Your task to perform on an android device: toggle notification dots Image 0: 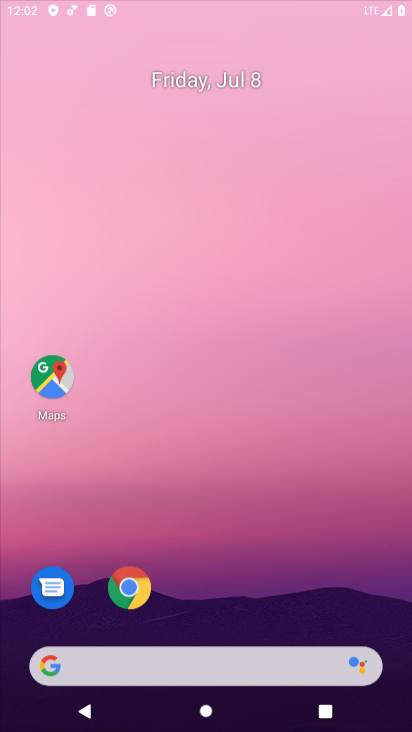
Step 0: press home button
Your task to perform on an android device: toggle notification dots Image 1: 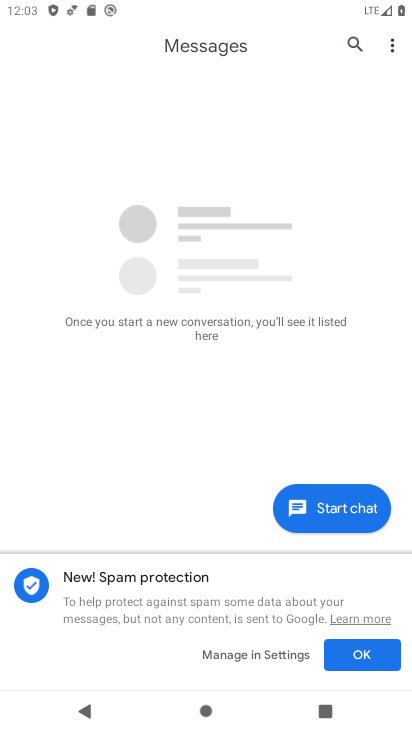
Step 1: drag from (228, 325) to (228, 65)
Your task to perform on an android device: toggle notification dots Image 2: 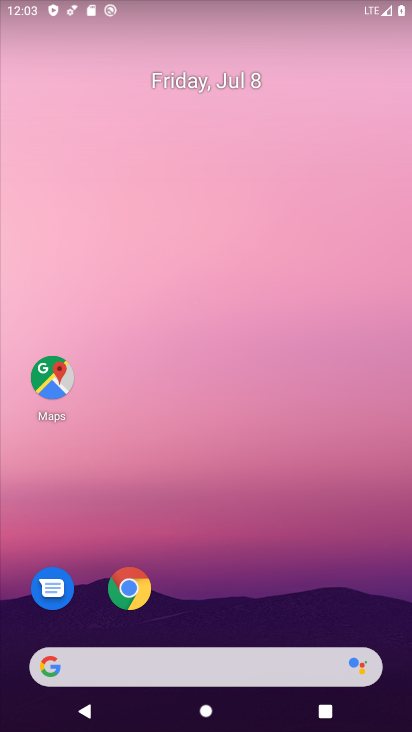
Step 2: drag from (223, 629) to (228, 102)
Your task to perform on an android device: toggle notification dots Image 3: 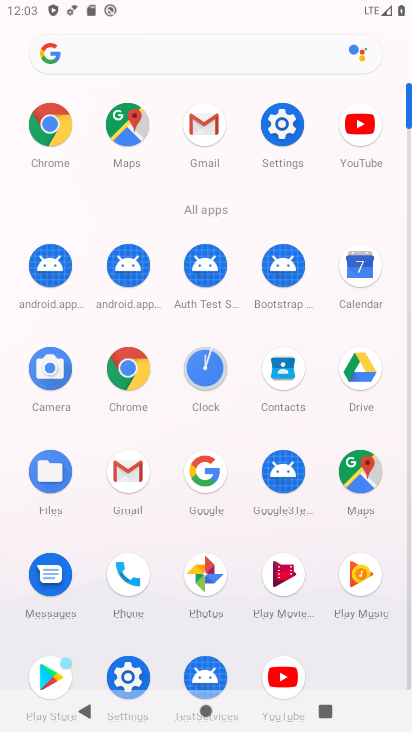
Step 3: click (281, 111)
Your task to perform on an android device: toggle notification dots Image 4: 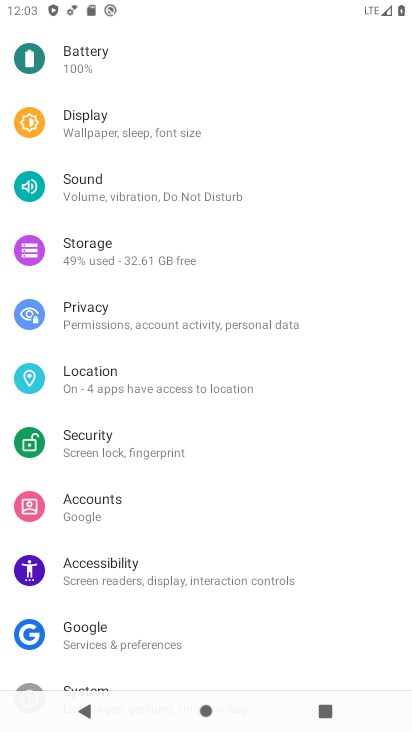
Step 4: drag from (123, 161) to (142, 659)
Your task to perform on an android device: toggle notification dots Image 5: 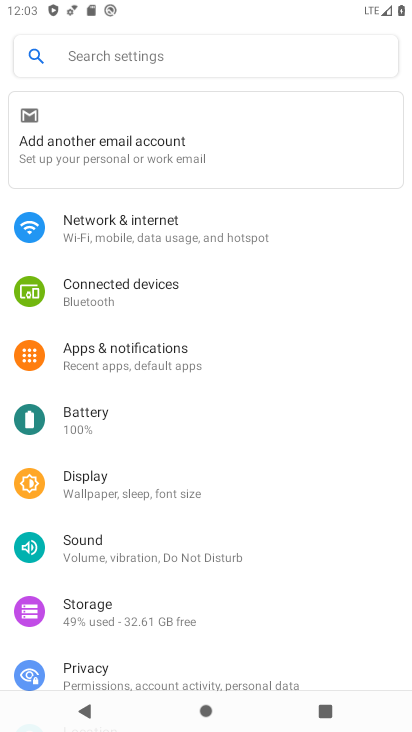
Step 5: click (108, 356)
Your task to perform on an android device: toggle notification dots Image 6: 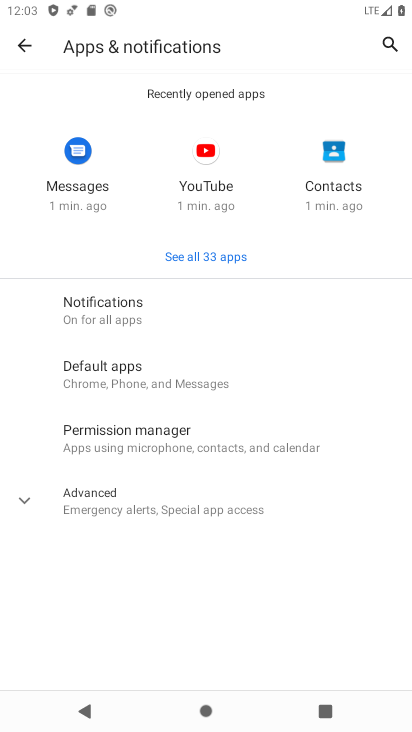
Step 6: click (155, 303)
Your task to perform on an android device: toggle notification dots Image 7: 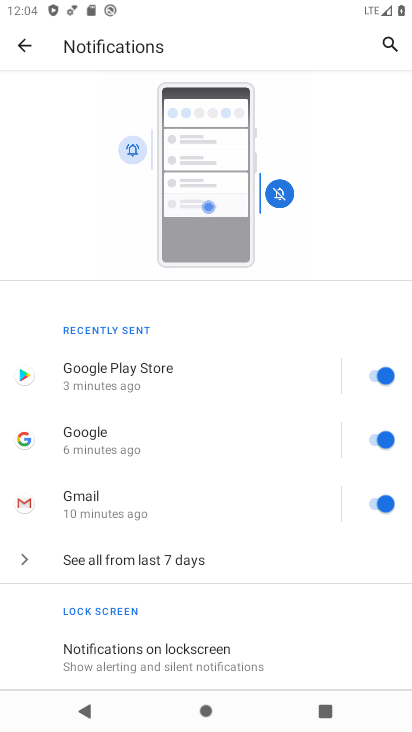
Step 7: drag from (240, 641) to (241, 316)
Your task to perform on an android device: toggle notification dots Image 8: 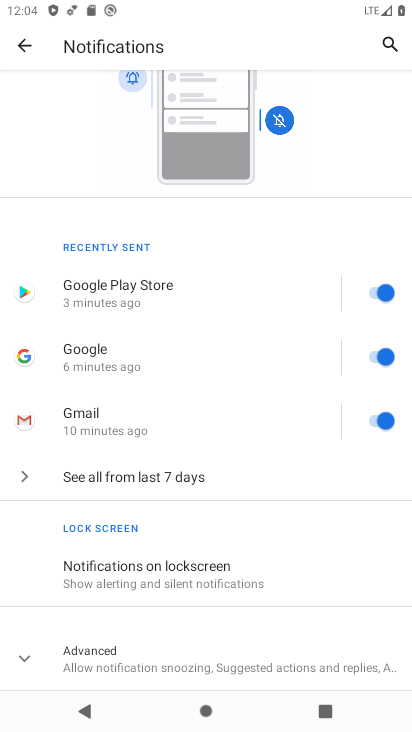
Step 8: click (109, 659)
Your task to perform on an android device: toggle notification dots Image 9: 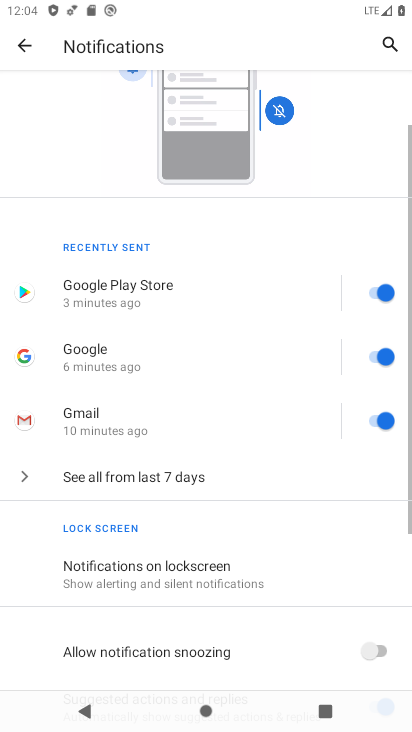
Step 9: drag from (176, 645) to (180, 221)
Your task to perform on an android device: toggle notification dots Image 10: 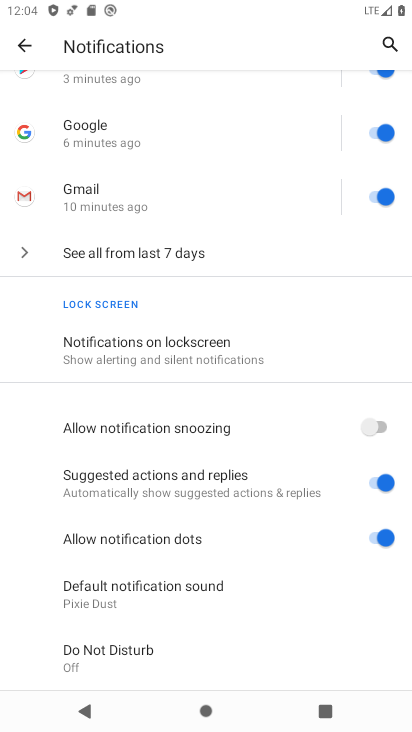
Step 10: click (374, 534)
Your task to perform on an android device: toggle notification dots Image 11: 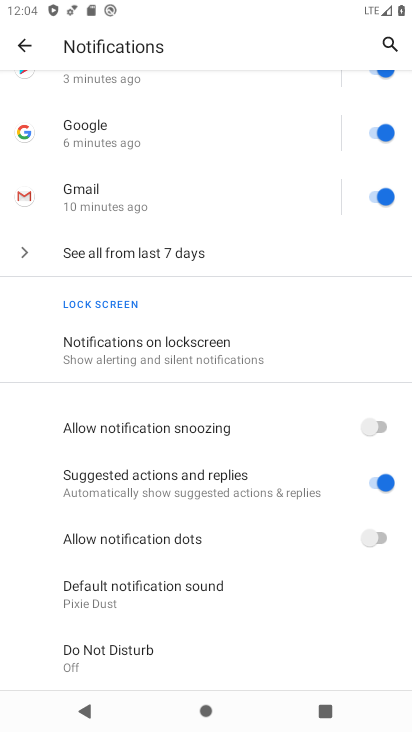
Step 11: task complete